Your task to perform on an android device: Go to internet settings Image 0: 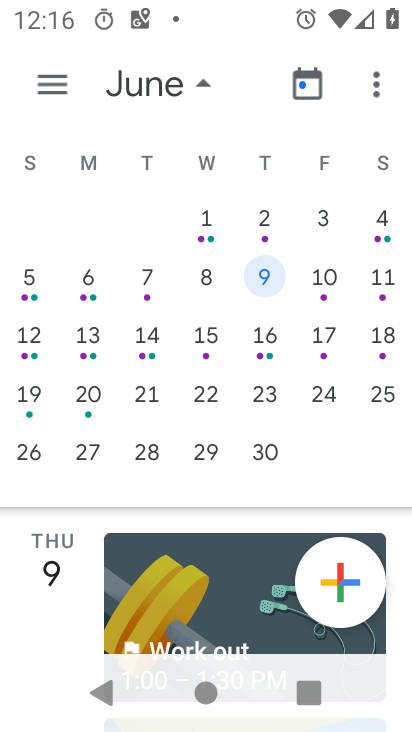
Step 0: press home button
Your task to perform on an android device: Go to internet settings Image 1: 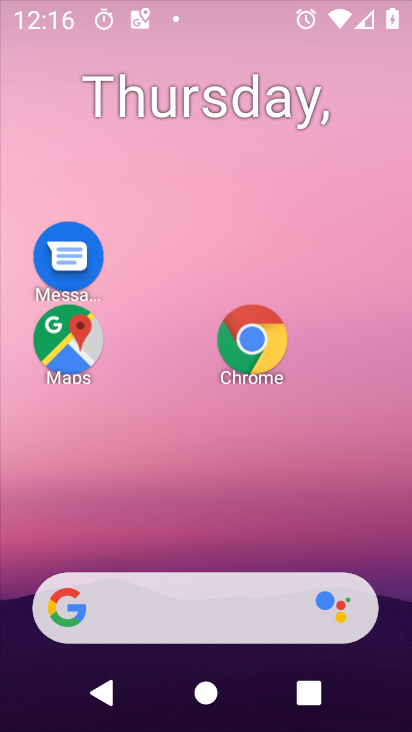
Step 1: drag from (207, 479) to (219, 114)
Your task to perform on an android device: Go to internet settings Image 2: 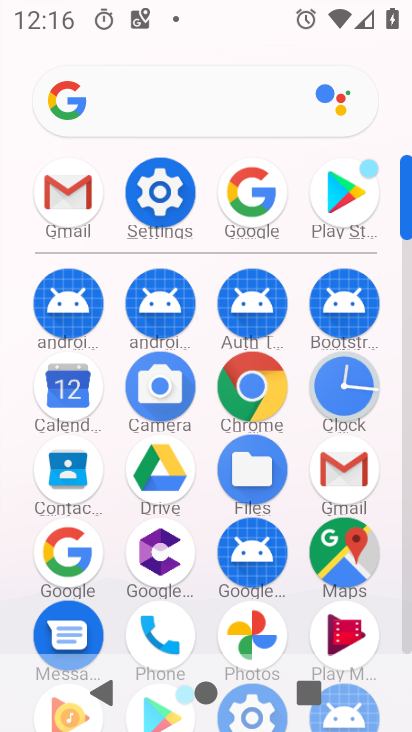
Step 2: click (162, 192)
Your task to perform on an android device: Go to internet settings Image 3: 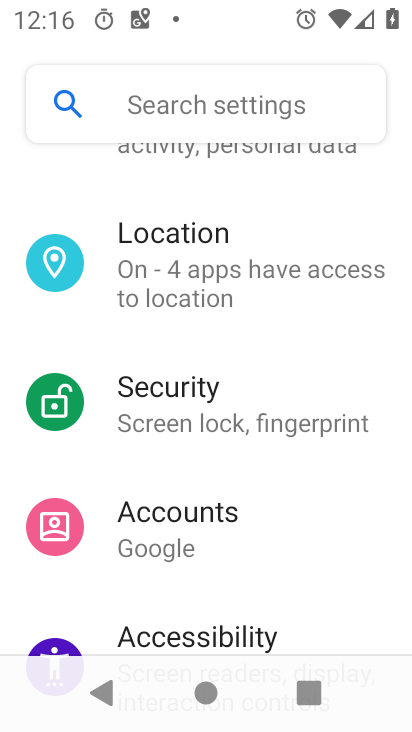
Step 3: drag from (234, 228) to (315, 673)
Your task to perform on an android device: Go to internet settings Image 4: 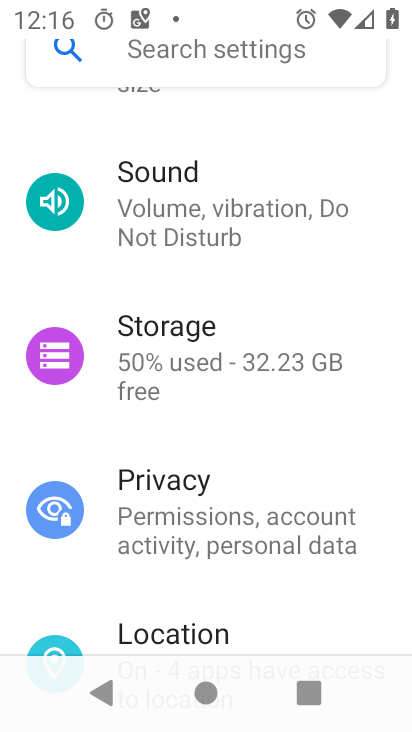
Step 4: drag from (162, 208) to (290, 730)
Your task to perform on an android device: Go to internet settings Image 5: 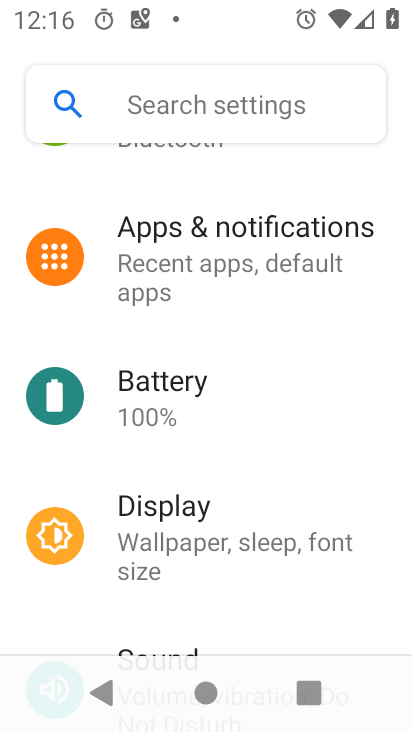
Step 5: drag from (192, 209) to (237, 583)
Your task to perform on an android device: Go to internet settings Image 6: 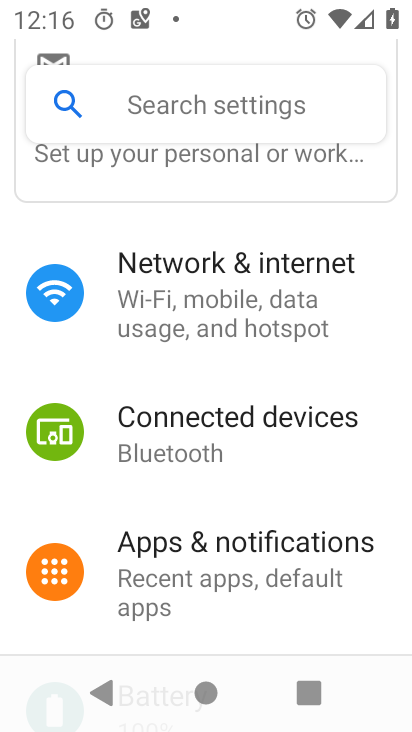
Step 6: click (226, 268)
Your task to perform on an android device: Go to internet settings Image 7: 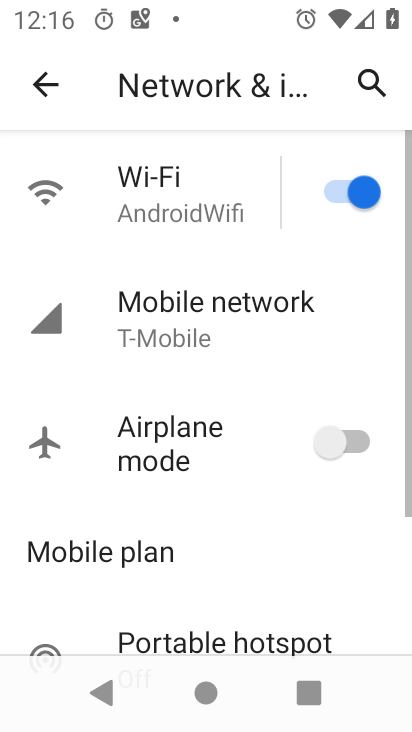
Step 7: drag from (223, 570) to (221, 514)
Your task to perform on an android device: Go to internet settings Image 8: 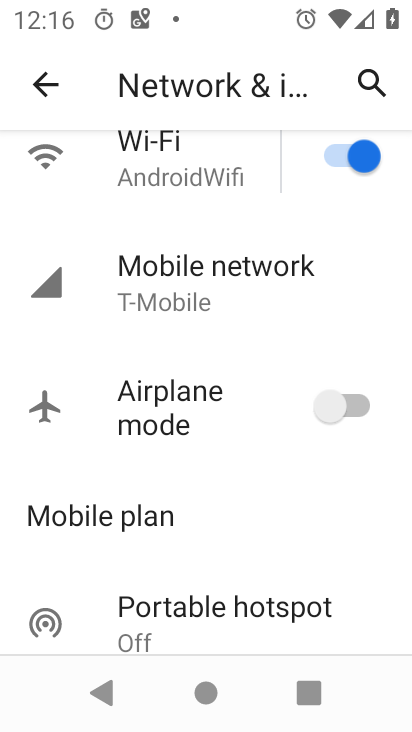
Step 8: click (154, 159)
Your task to perform on an android device: Go to internet settings Image 9: 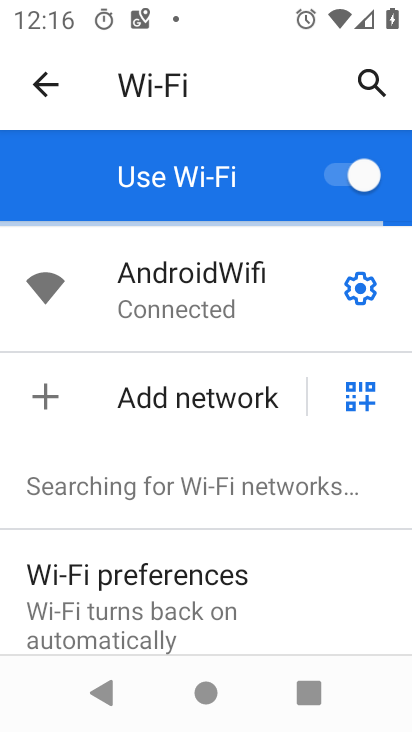
Step 9: click (181, 274)
Your task to perform on an android device: Go to internet settings Image 10: 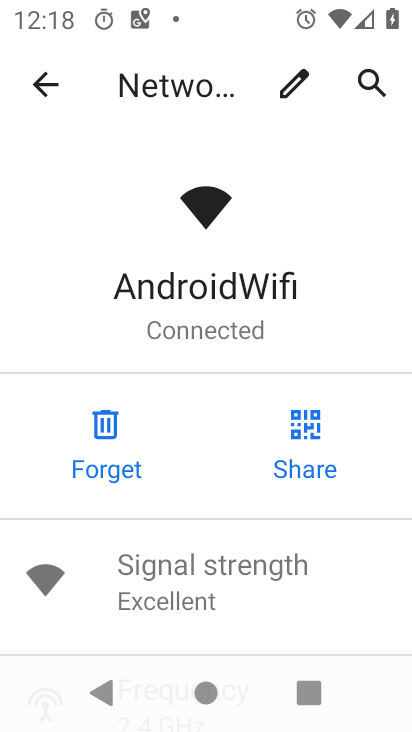
Step 10: task complete